Your task to perform on an android device: check storage Image 0: 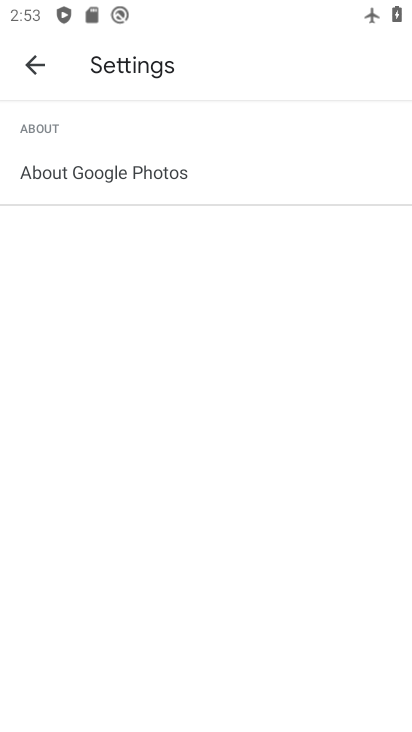
Step 0: press home button
Your task to perform on an android device: check storage Image 1: 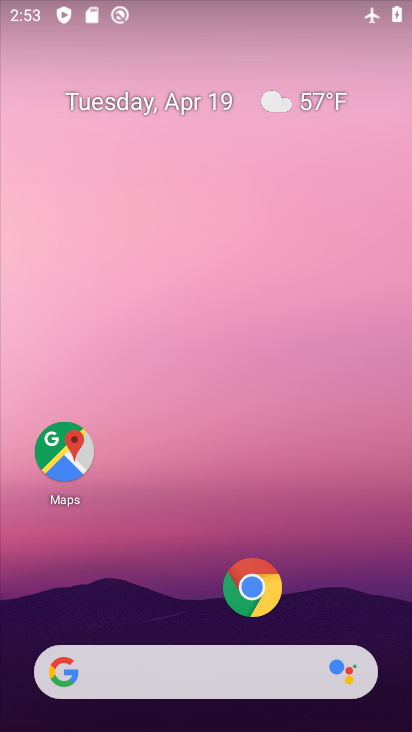
Step 1: drag from (176, 608) to (244, 63)
Your task to perform on an android device: check storage Image 2: 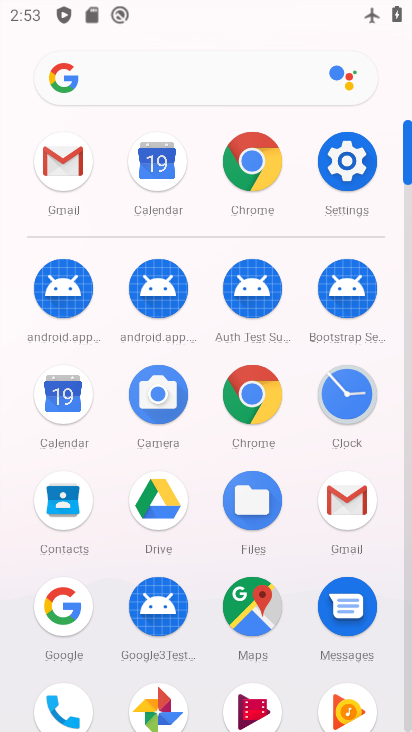
Step 2: click (357, 188)
Your task to perform on an android device: check storage Image 3: 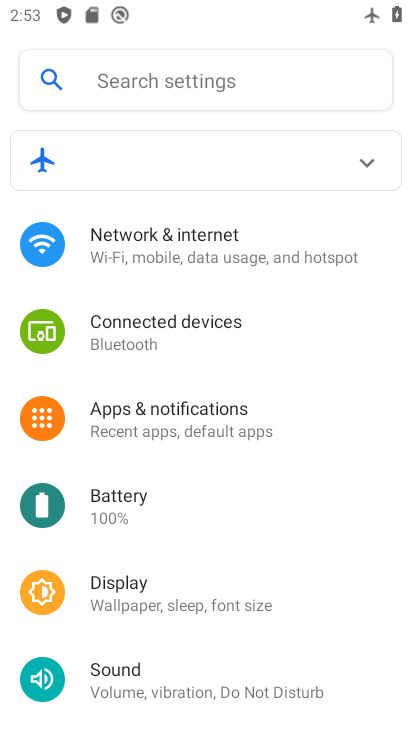
Step 3: drag from (140, 611) to (227, 299)
Your task to perform on an android device: check storage Image 4: 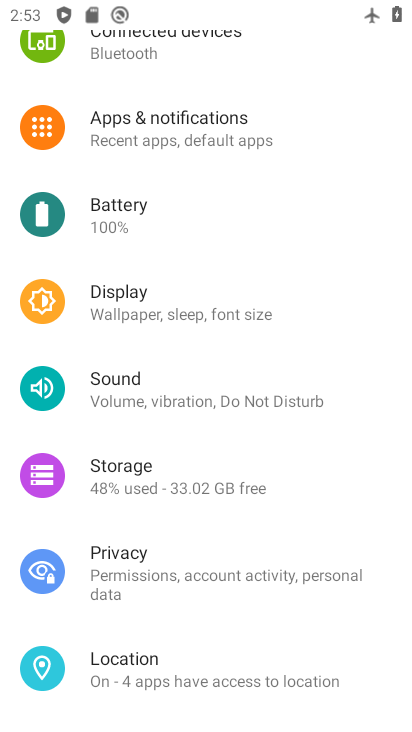
Step 4: click (172, 486)
Your task to perform on an android device: check storage Image 5: 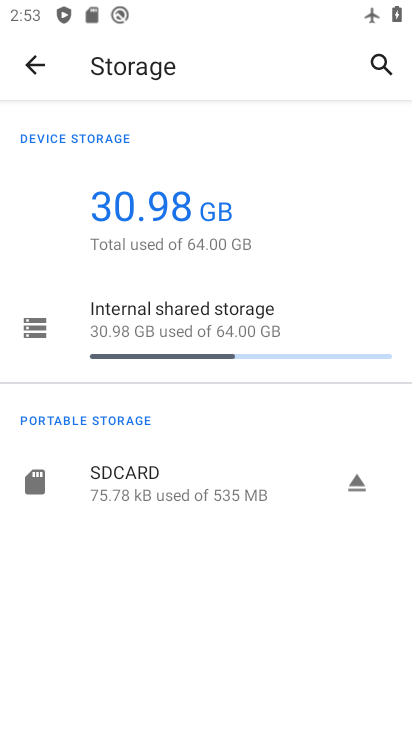
Step 5: click (146, 338)
Your task to perform on an android device: check storage Image 6: 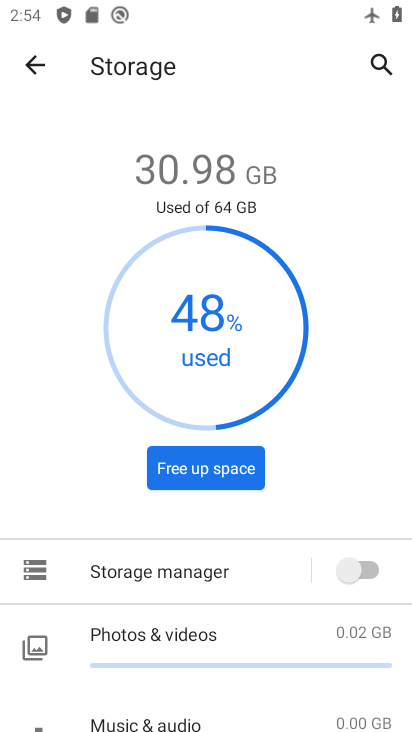
Step 6: task complete